Your task to perform on an android device: Find coffee shops on Maps Image 0: 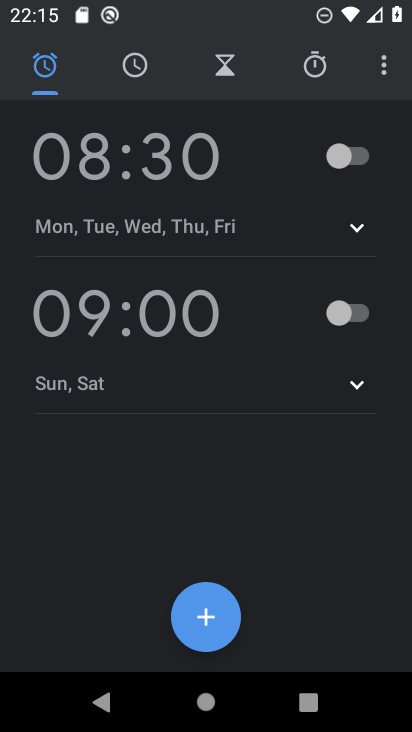
Step 0: press home button
Your task to perform on an android device: Find coffee shops on Maps Image 1: 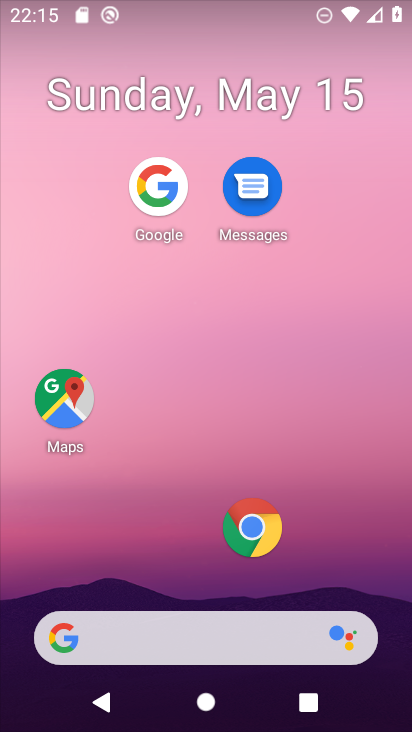
Step 1: click (63, 421)
Your task to perform on an android device: Find coffee shops on Maps Image 2: 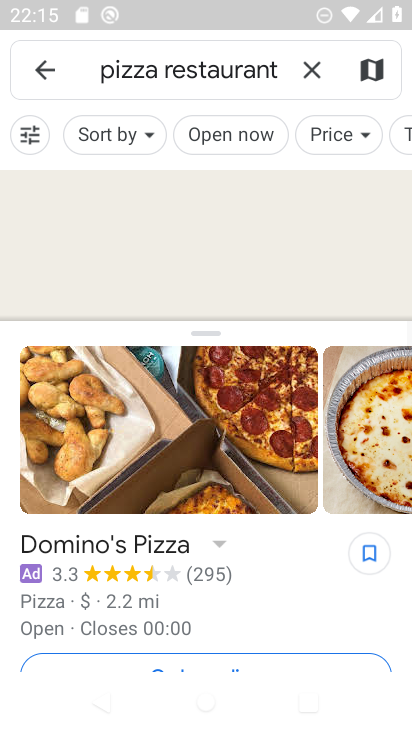
Step 2: click (310, 69)
Your task to perform on an android device: Find coffee shops on Maps Image 3: 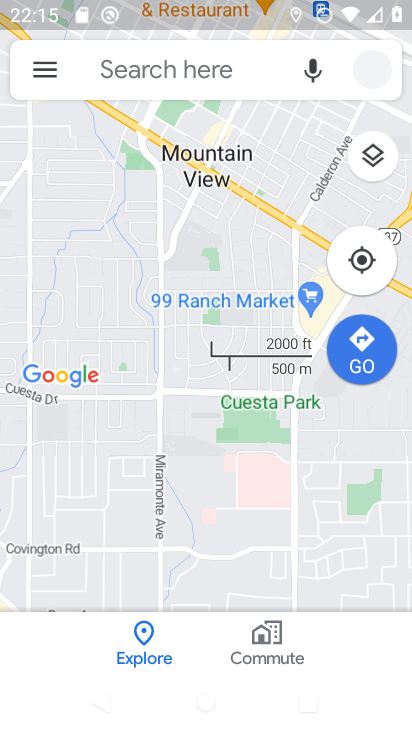
Step 3: click (180, 71)
Your task to perform on an android device: Find coffee shops on Maps Image 4: 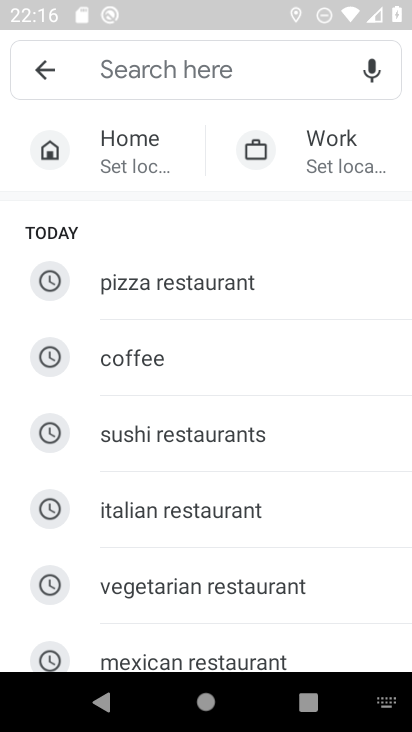
Step 4: click (136, 360)
Your task to perform on an android device: Find coffee shops on Maps Image 5: 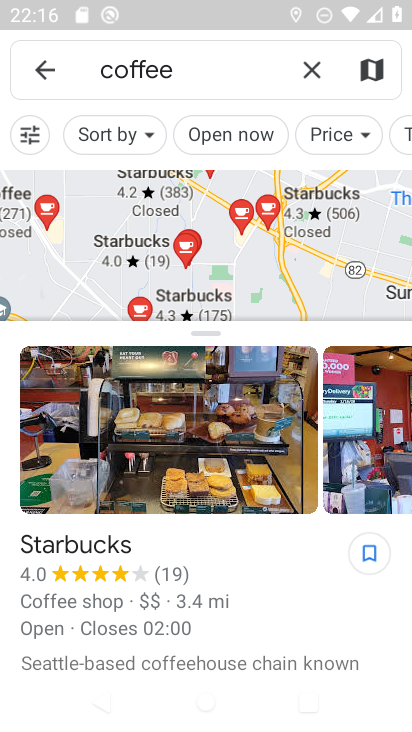
Step 5: task complete